Your task to perform on an android device: check battery use Image 0: 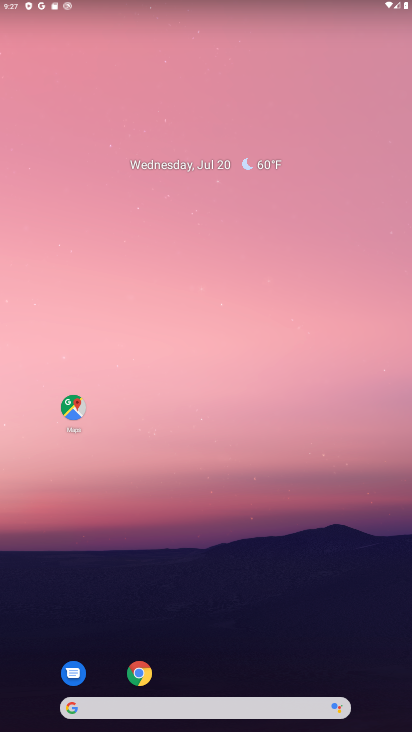
Step 0: drag from (210, 541) to (188, 258)
Your task to perform on an android device: check battery use Image 1: 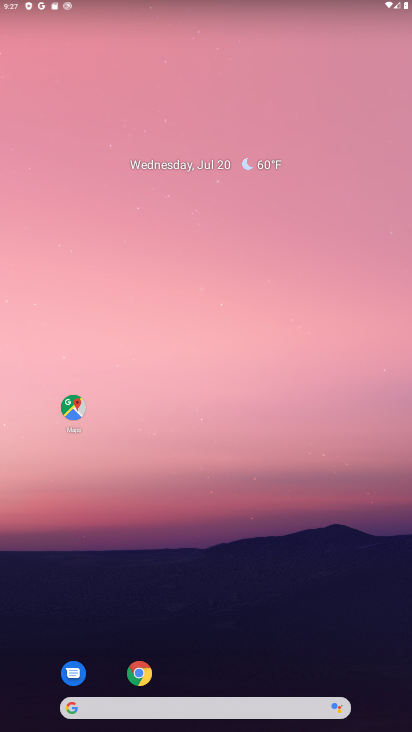
Step 1: click (298, 0)
Your task to perform on an android device: check battery use Image 2: 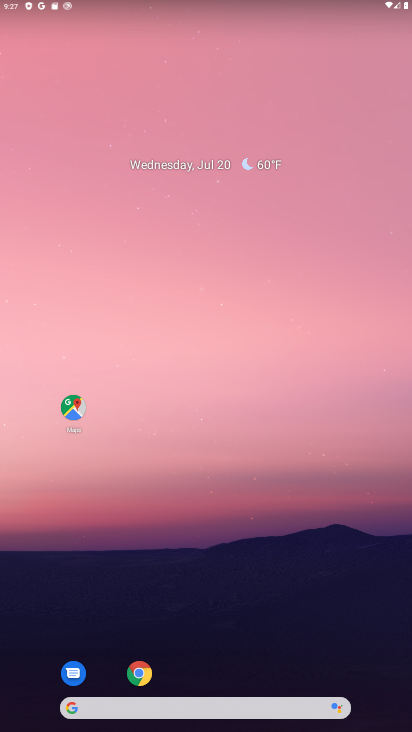
Step 2: drag from (195, 629) to (148, 10)
Your task to perform on an android device: check battery use Image 3: 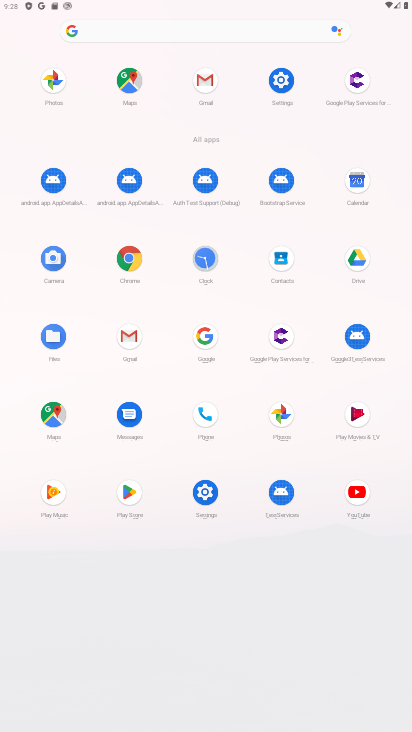
Step 3: click (278, 92)
Your task to perform on an android device: check battery use Image 4: 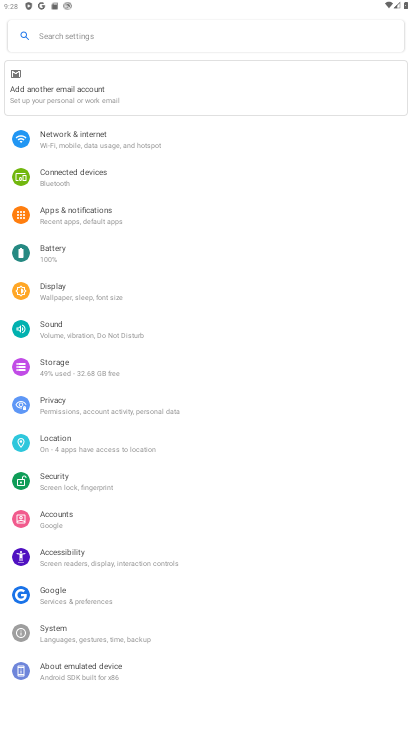
Step 4: click (48, 247)
Your task to perform on an android device: check battery use Image 5: 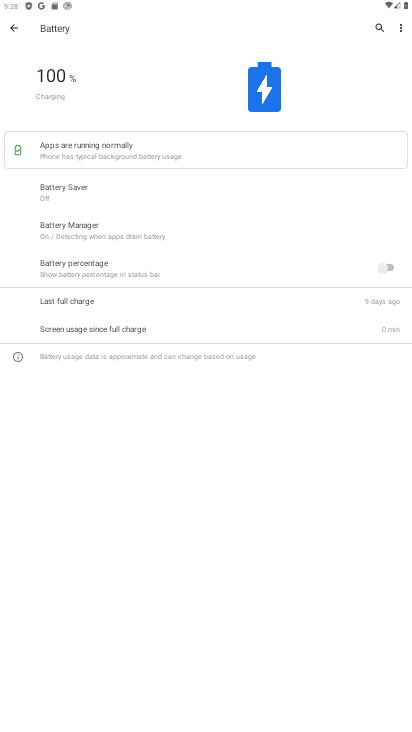
Step 5: task complete